Your task to perform on an android device: Open the calendar app, open the side menu, and click the "Day" option Image 0: 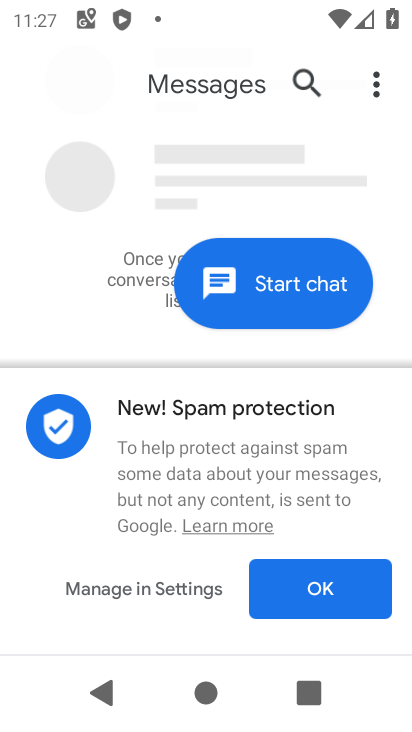
Step 0: press home button
Your task to perform on an android device: Open the calendar app, open the side menu, and click the "Day" option Image 1: 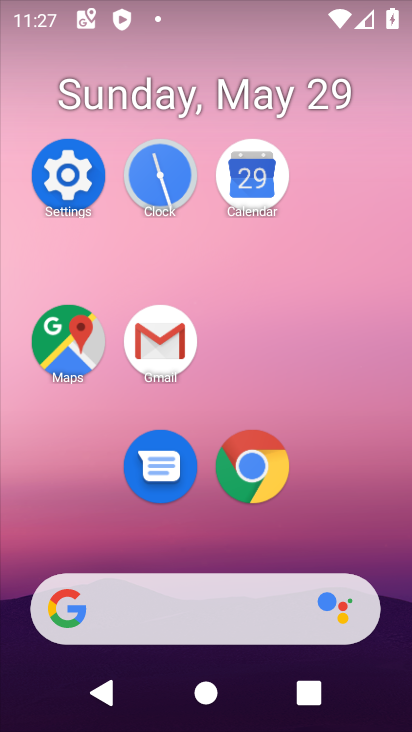
Step 1: click (251, 162)
Your task to perform on an android device: Open the calendar app, open the side menu, and click the "Day" option Image 2: 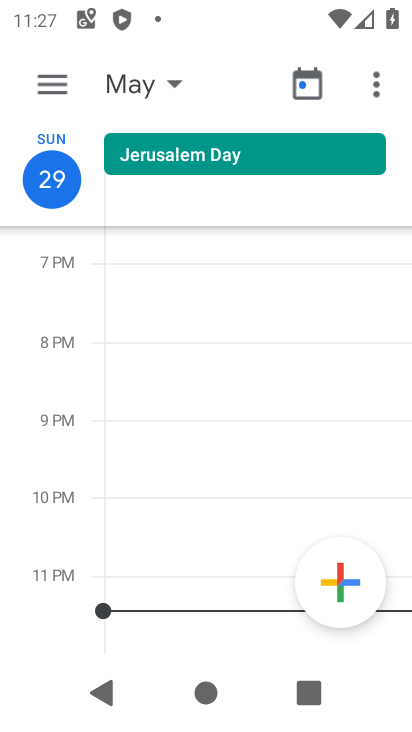
Step 2: click (52, 109)
Your task to perform on an android device: Open the calendar app, open the side menu, and click the "Day" option Image 3: 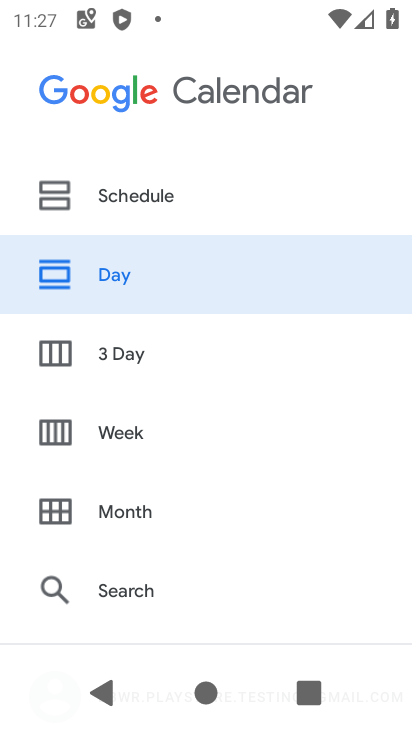
Step 3: click (197, 261)
Your task to perform on an android device: Open the calendar app, open the side menu, and click the "Day" option Image 4: 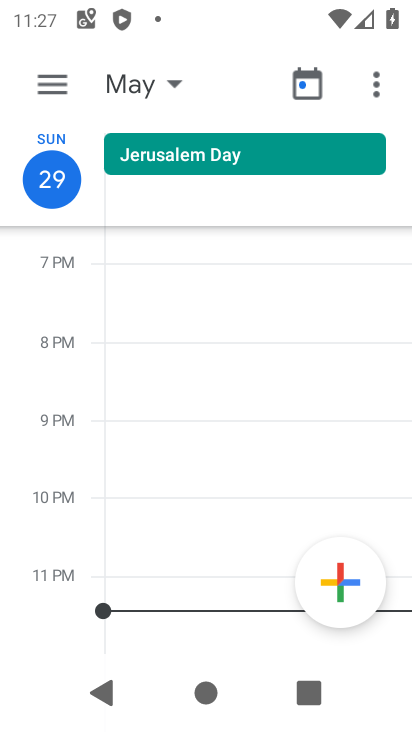
Step 4: task complete